Your task to perform on an android device: check battery use Image 0: 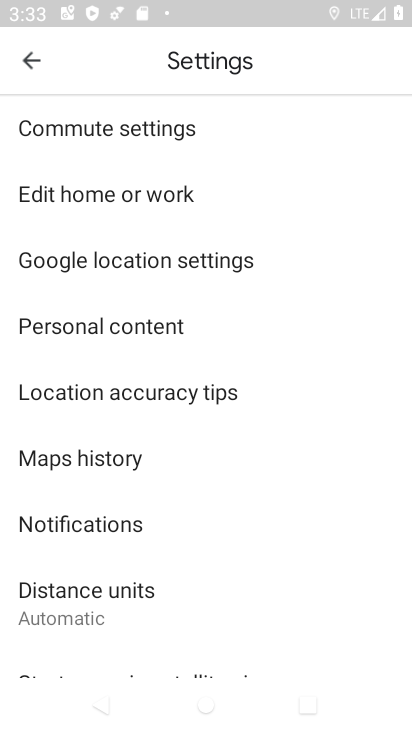
Step 0: press home button
Your task to perform on an android device: check battery use Image 1: 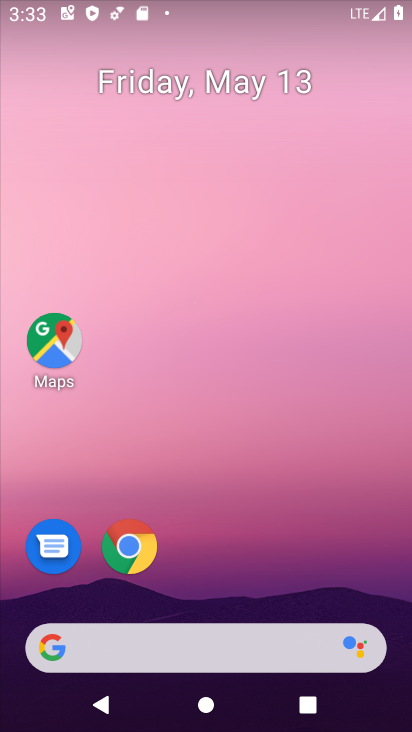
Step 1: drag from (273, 615) to (313, 7)
Your task to perform on an android device: check battery use Image 2: 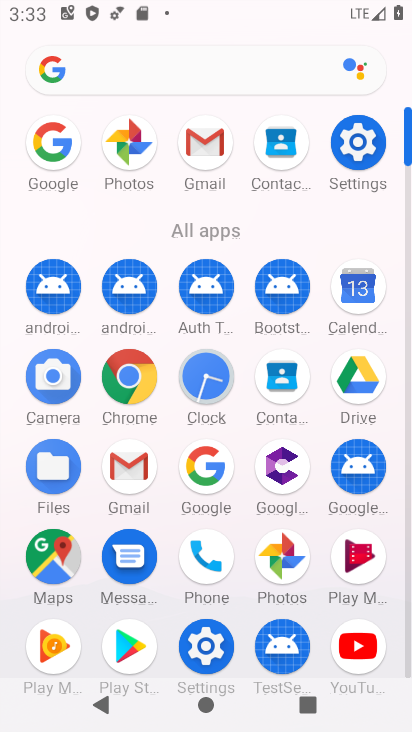
Step 2: click (358, 164)
Your task to perform on an android device: check battery use Image 3: 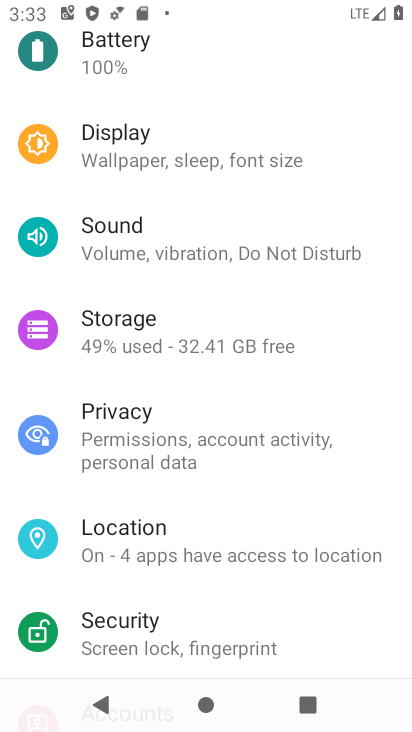
Step 3: click (167, 48)
Your task to perform on an android device: check battery use Image 4: 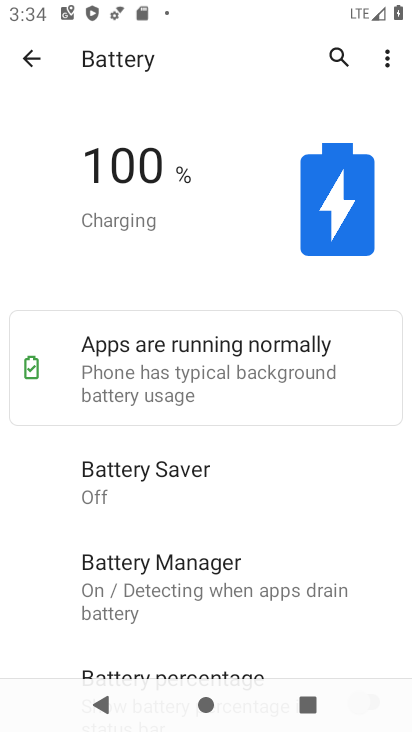
Step 4: task complete